Your task to perform on an android device: turn on wifi Image 0: 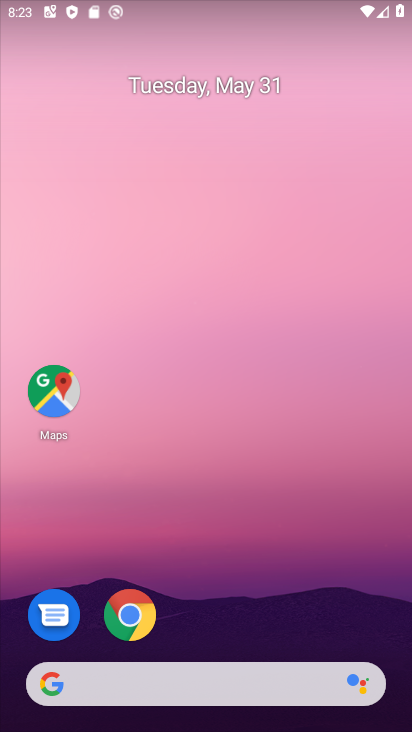
Step 0: drag from (410, 611) to (326, 15)
Your task to perform on an android device: turn on wifi Image 1: 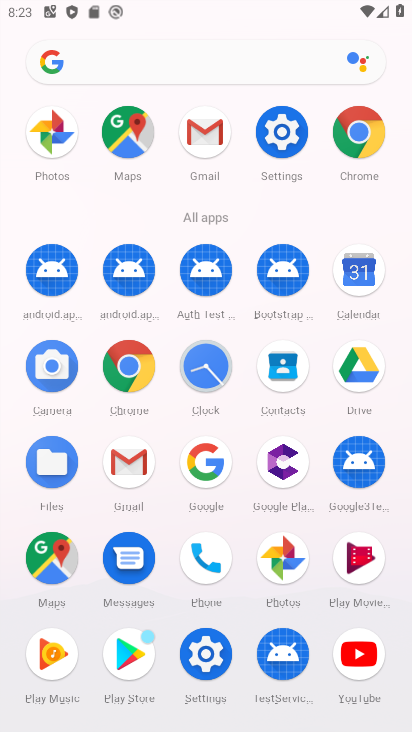
Step 1: click (195, 655)
Your task to perform on an android device: turn on wifi Image 2: 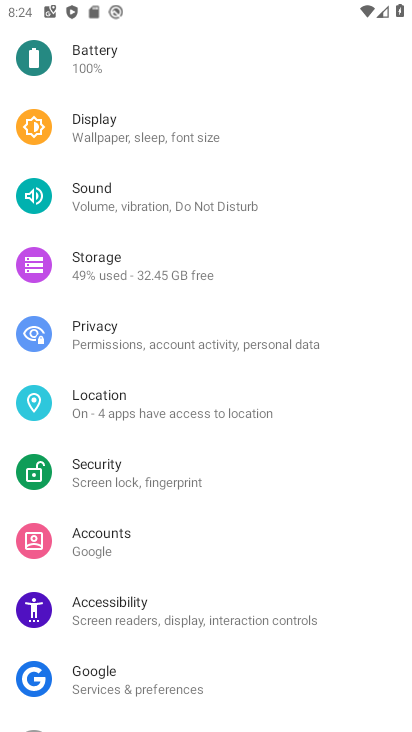
Step 2: drag from (353, 206) to (354, 492)
Your task to perform on an android device: turn on wifi Image 3: 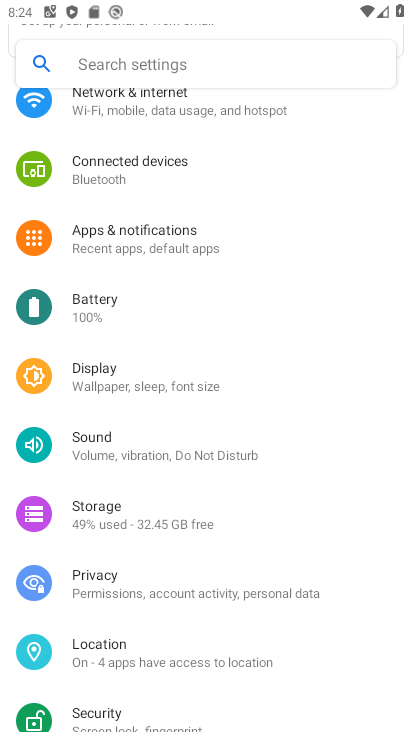
Step 3: drag from (304, 297) to (303, 497)
Your task to perform on an android device: turn on wifi Image 4: 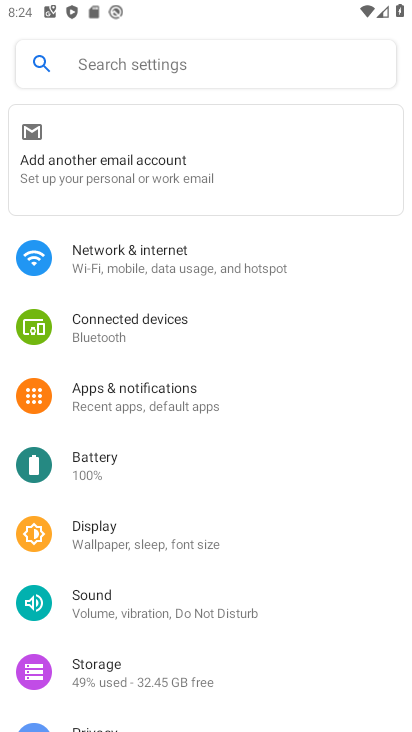
Step 4: click (111, 246)
Your task to perform on an android device: turn on wifi Image 5: 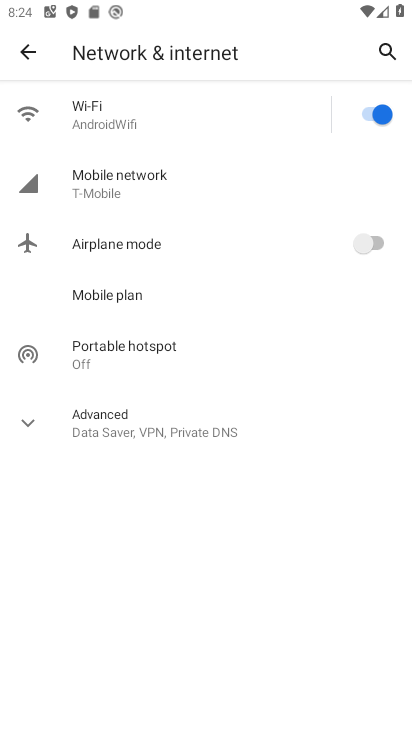
Step 5: task complete